Your task to perform on an android device: turn off javascript in the chrome app Image 0: 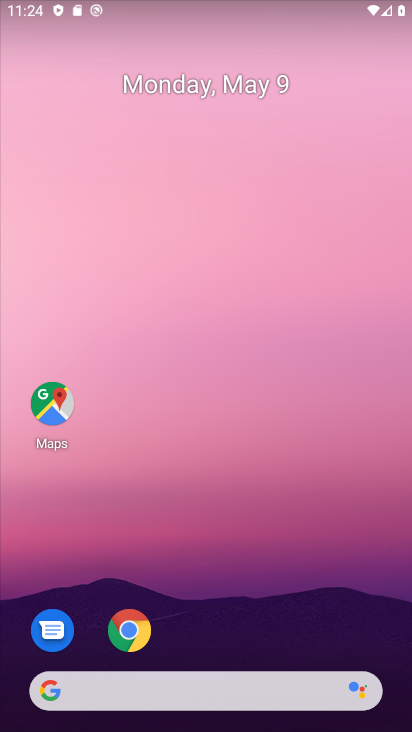
Step 0: drag from (207, 567) to (199, 18)
Your task to perform on an android device: turn off javascript in the chrome app Image 1: 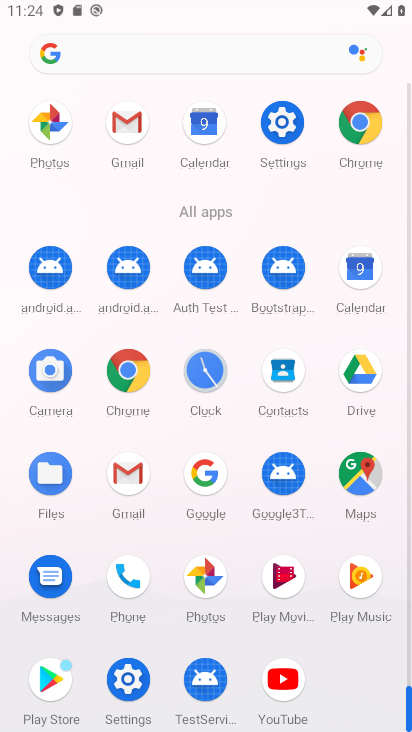
Step 1: click (359, 119)
Your task to perform on an android device: turn off javascript in the chrome app Image 2: 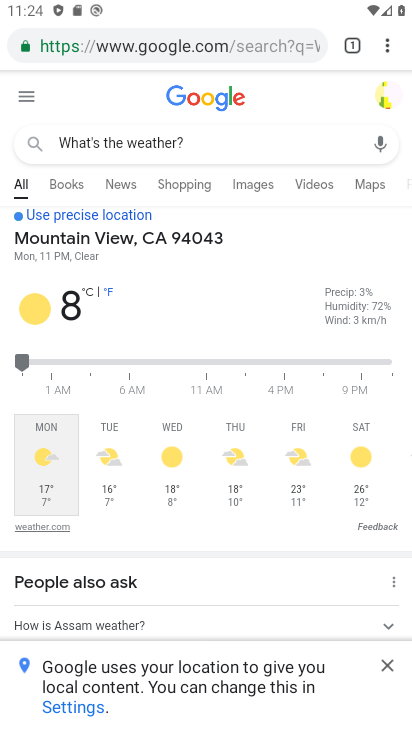
Step 2: drag from (392, 44) to (235, 510)
Your task to perform on an android device: turn off javascript in the chrome app Image 3: 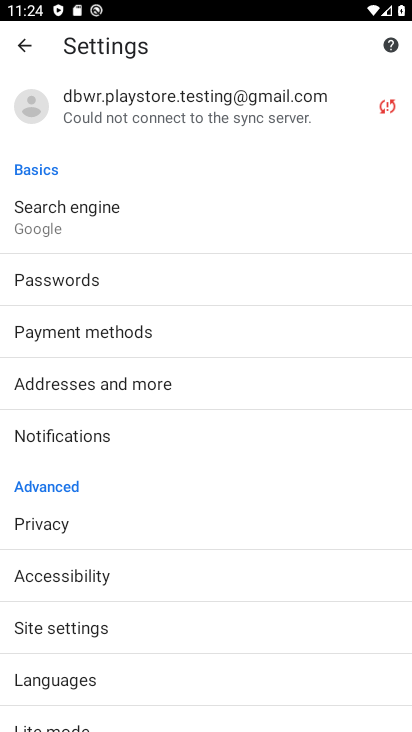
Step 3: drag from (191, 583) to (197, 219)
Your task to perform on an android device: turn off javascript in the chrome app Image 4: 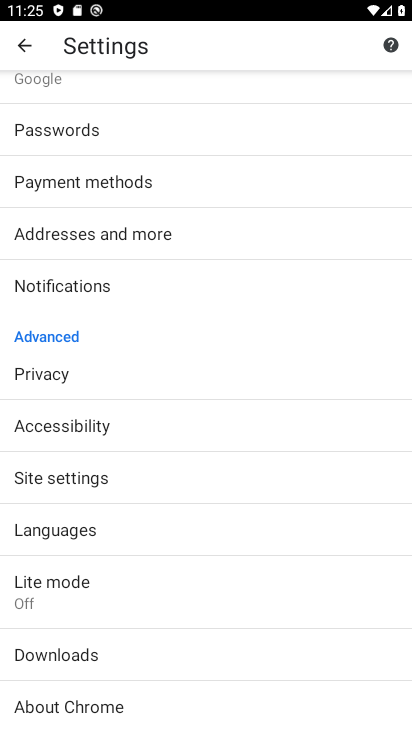
Step 4: click (119, 474)
Your task to perform on an android device: turn off javascript in the chrome app Image 5: 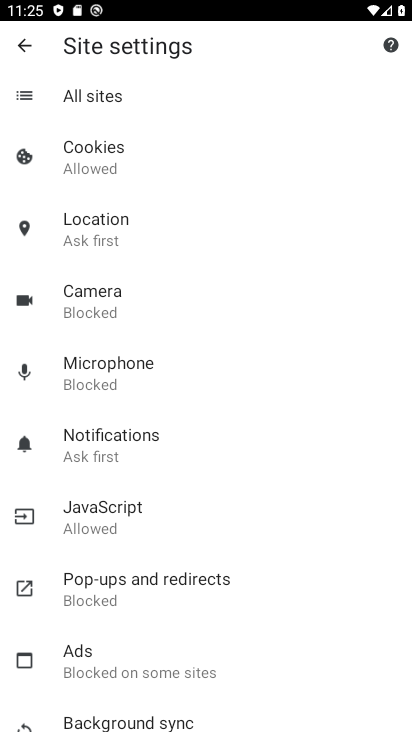
Step 5: click (121, 511)
Your task to perform on an android device: turn off javascript in the chrome app Image 6: 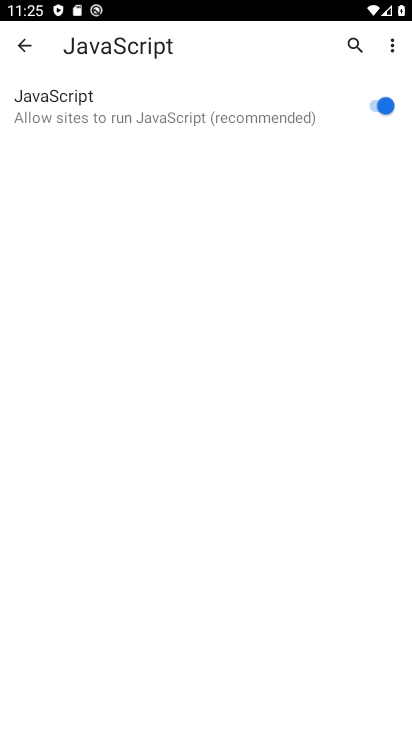
Step 6: click (379, 110)
Your task to perform on an android device: turn off javascript in the chrome app Image 7: 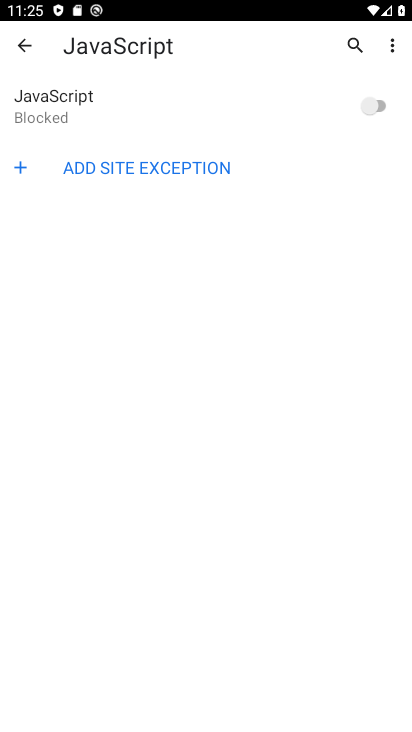
Step 7: task complete